Your task to perform on an android device: turn notification dots off Image 0: 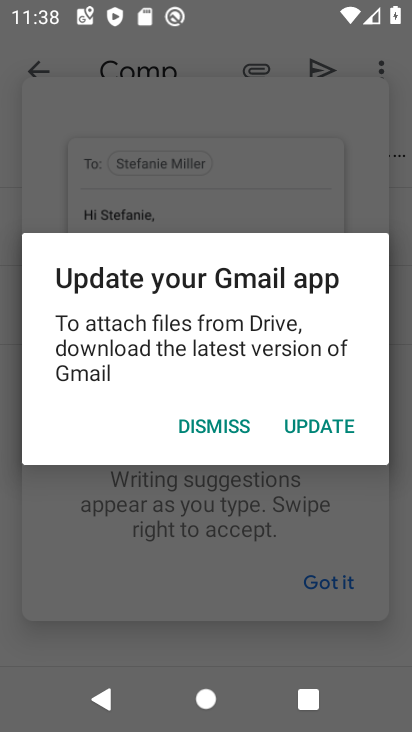
Step 0: press home button
Your task to perform on an android device: turn notification dots off Image 1: 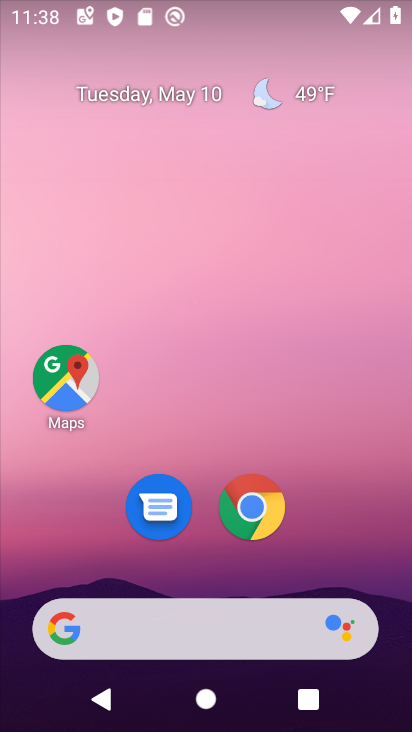
Step 1: drag from (211, 547) to (233, 5)
Your task to perform on an android device: turn notification dots off Image 2: 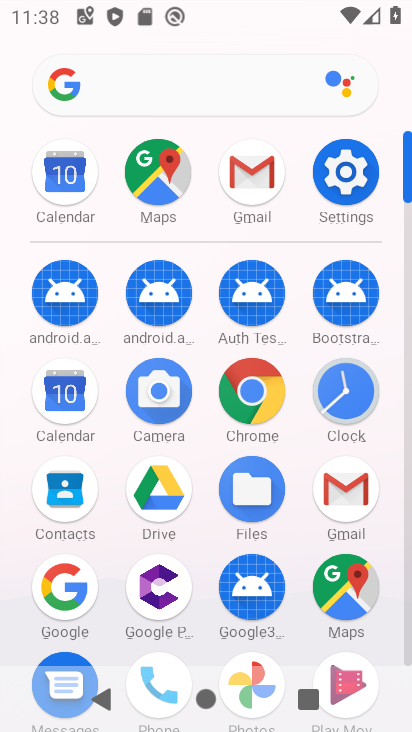
Step 2: click (351, 170)
Your task to perform on an android device: turn notification dots off Image 3: 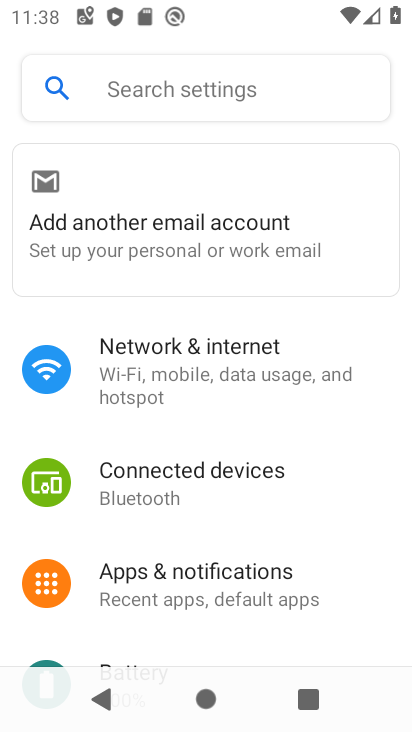
Step 3: drag from (258, 549) to (270, 64)
Your task to perform on an android device: turn notification dots off Image 4: 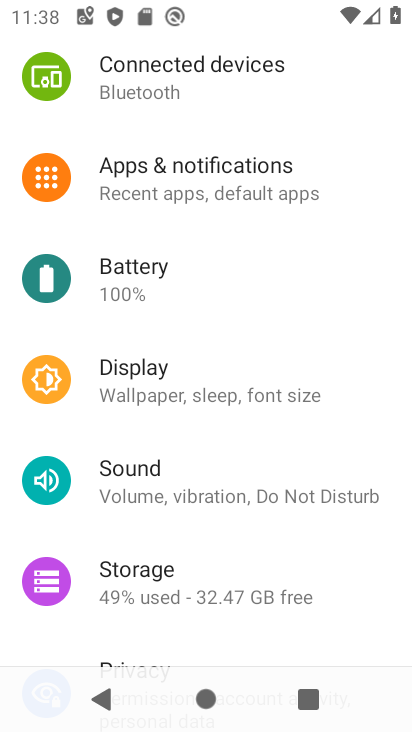
Step 4: click (182, 184)
Your task to perform on an android device: turn notification dots off Image 5: 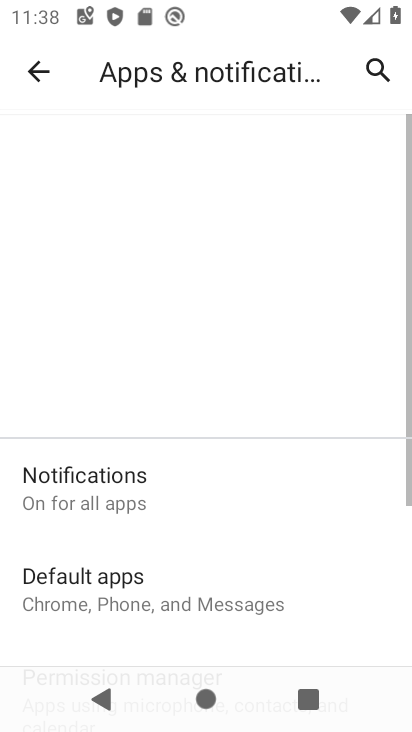
Step 5: click (141, 499)
Your task to perform on an android device: turn notification dots off Image 6: 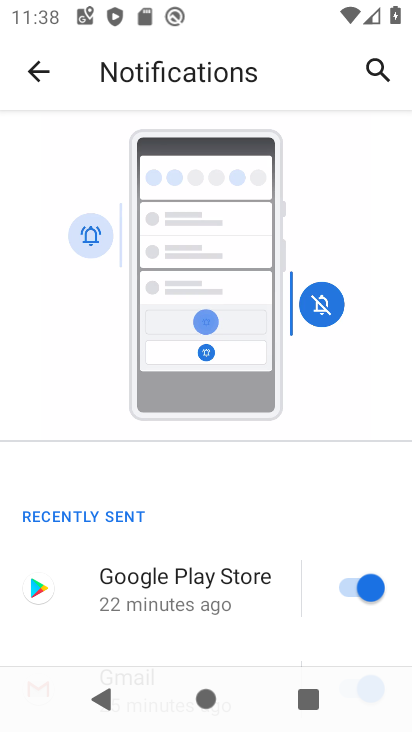
Step 6: drag from (222, 555) to (225, 9)
Your task to perform on an android device: turn notification dots off Image 7: 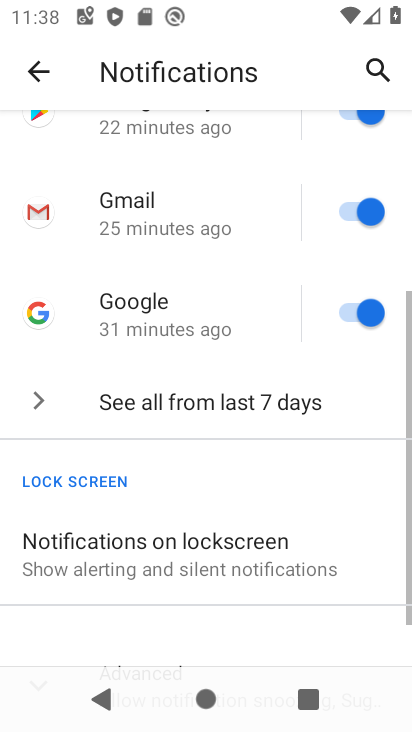
Step 7: drag from (248, 564) to (228, 173)
Your task to perform on an android device: turn notification dots off Image 8: 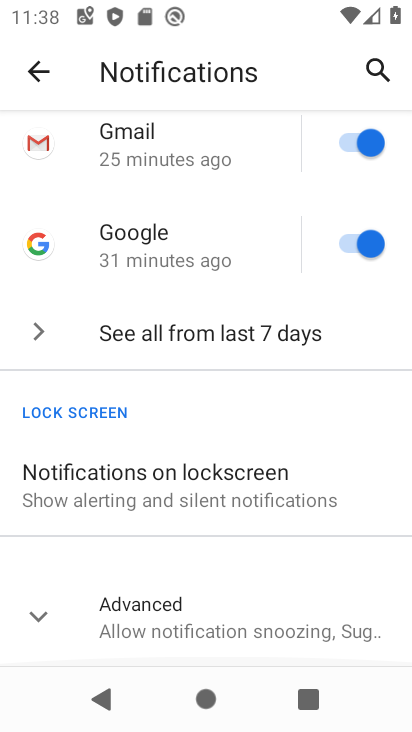
Step 8: click (175, 623)
Your task to perform on an android device: turn notification dots off Image 9: 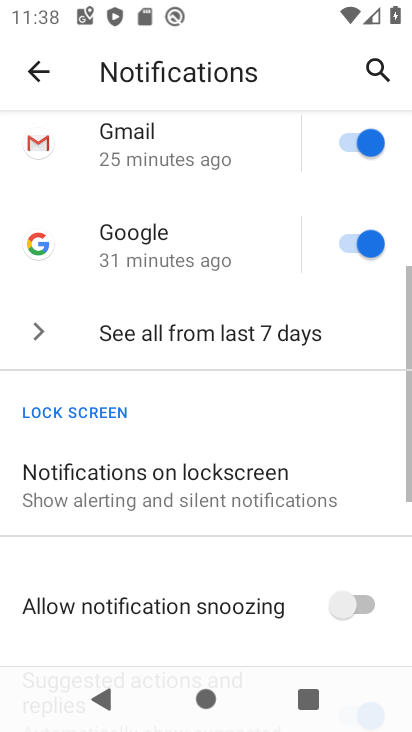
Step 9: drag from (295, 564) to (263, 97)
Your task to perform on an android device: turn notification dots off Image 10: 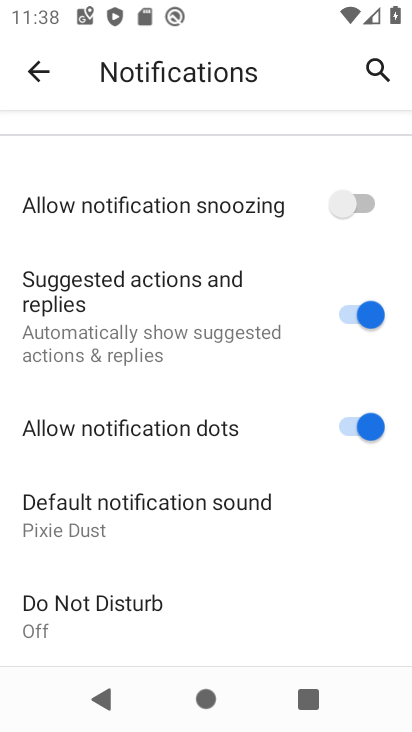
Step 10: click (365, 426)
Your task to perform on an android device: turn notification dots off Image 11: 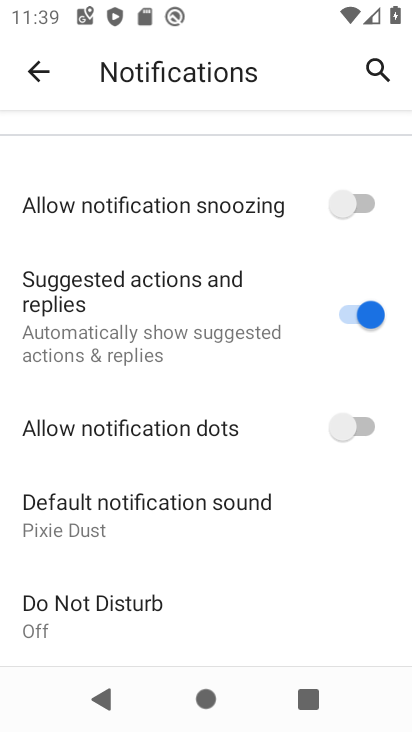
Step 11: task complete